Your task to perform on an android device: Open privacy settings Image 0: 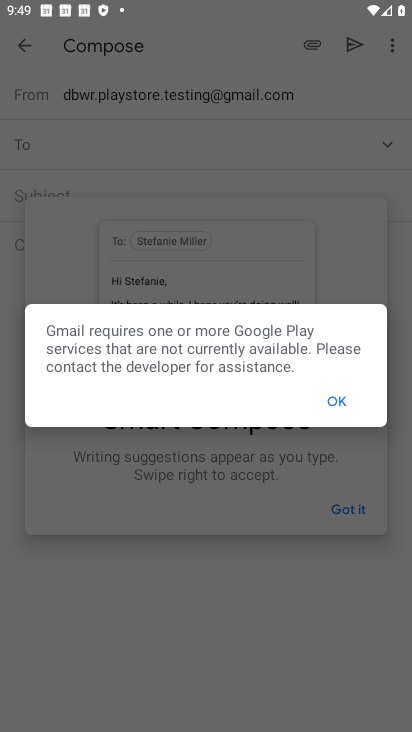
Step 0: click (338, 400)
Your task to perform on an android device: Open privacy settings Image 1: 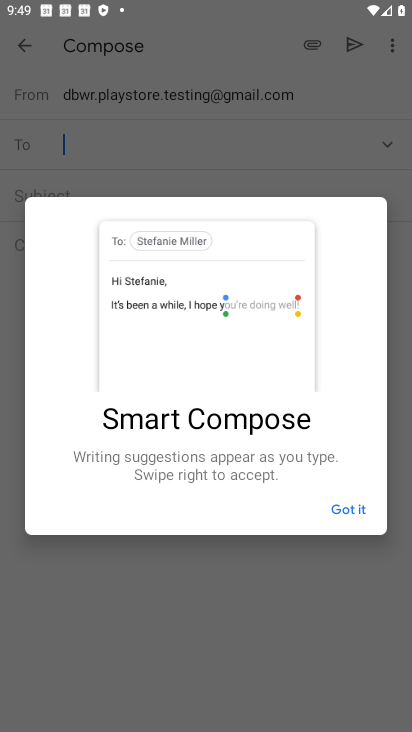
Step 1: press home button
Your task to perform on an android device: Open privacy settings Image 2: 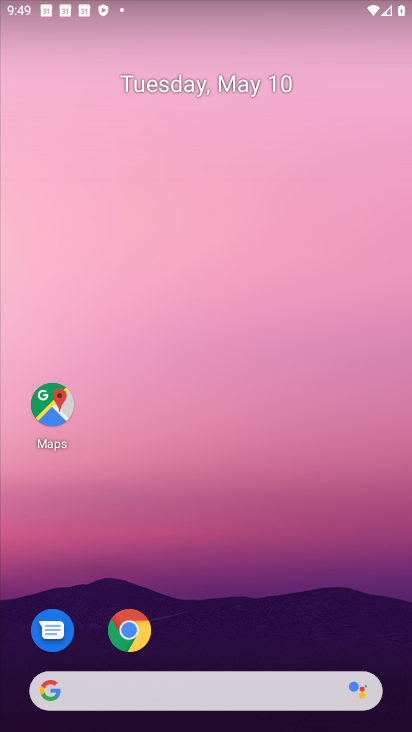
Step 2: drag from (300, 720) to (335, 0)
Your task to perform on an android device: Open privacy settings Image 3: 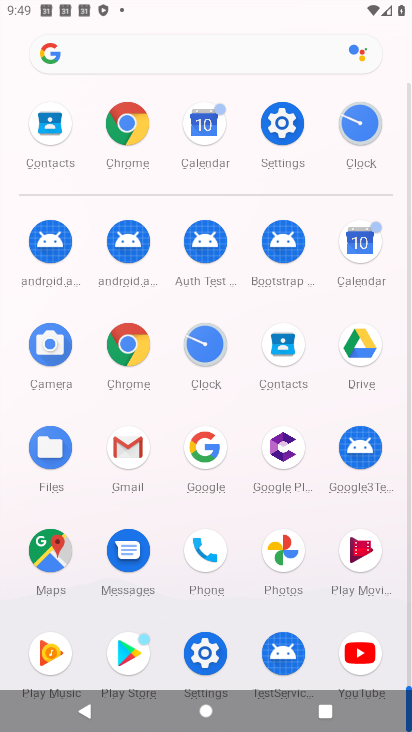
Step 3: click (288, 124)
Your task to perform on an android device: Open privacy settings Image 4: 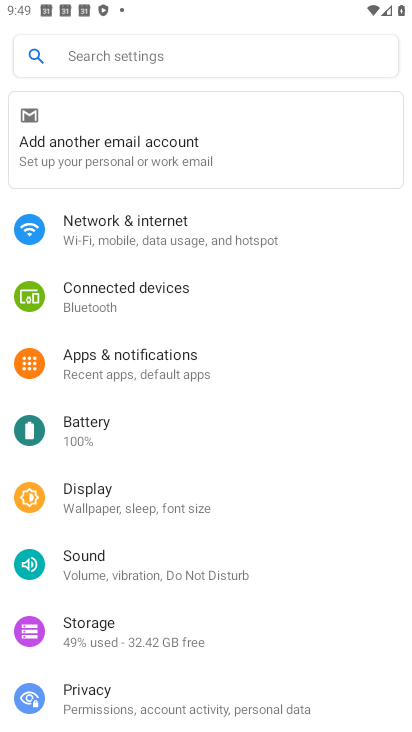
Step 4: click (113, 695)
Your task to perform on an android device: Open privacy settings Image 5: 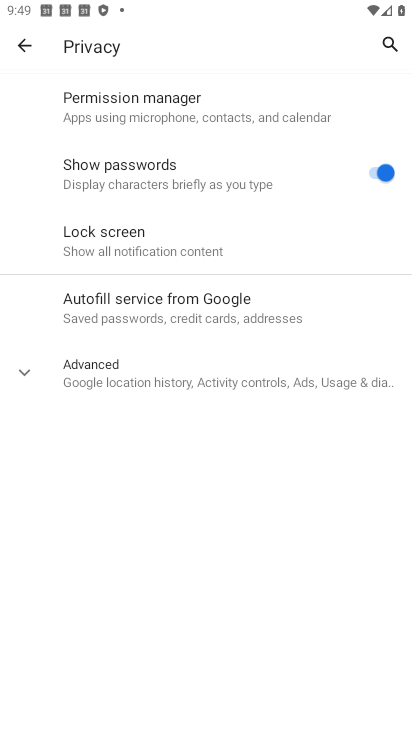
Step 5: task complete